Your task to perform on an android device: turn off sleep mode Image 0: 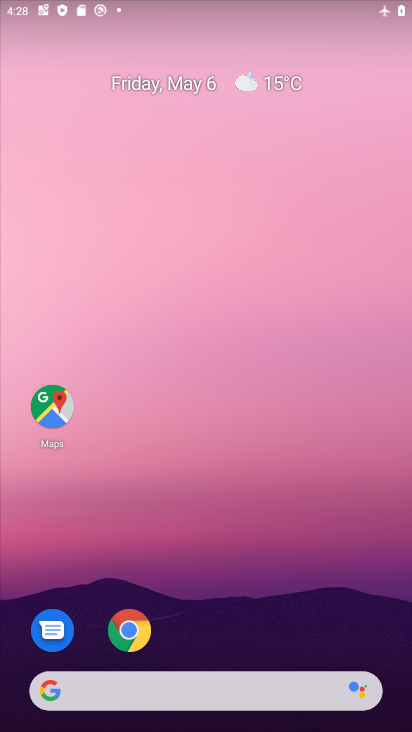
Step 0: click (307, 9)
Your task to perform on an android device: turn off sleep mode Image 1: 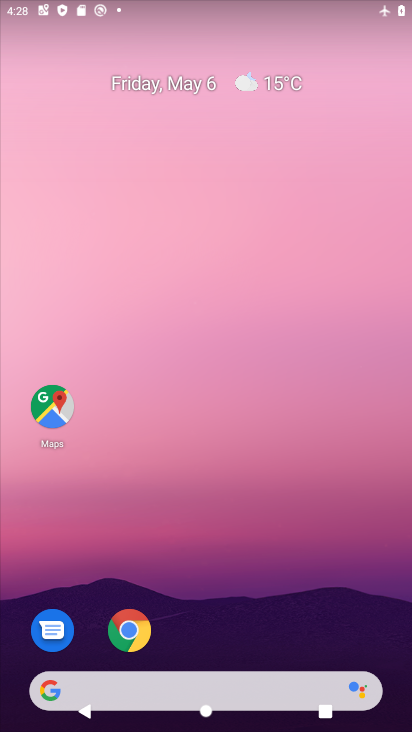
Step 1: drag from (214, 547) to (299, 12)
Your task to perform on an android device: turn off sleep mode Image 2: 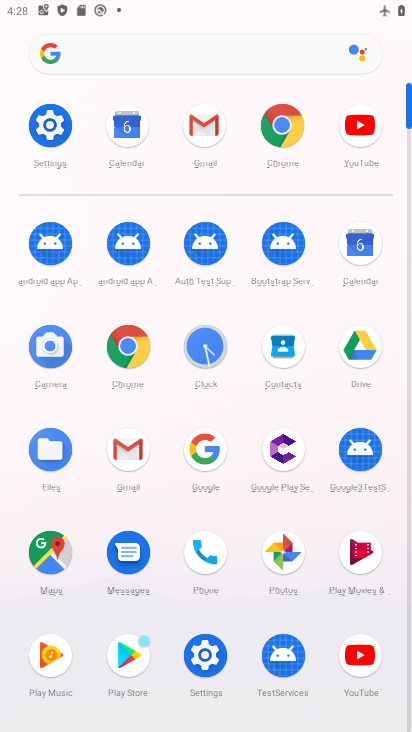
Step 2: click (53, 107)
Your task to perform on an android device: turn off sleep mode Image 3: 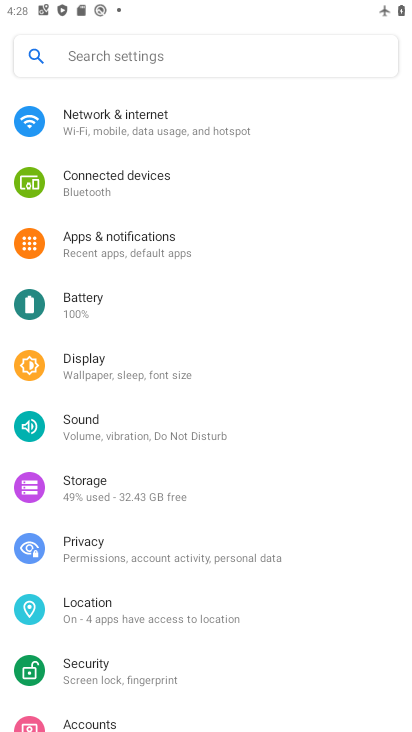
Step 3: click (203, 61)
Your task to perform on an android device: turn off sleep mode Image 4: 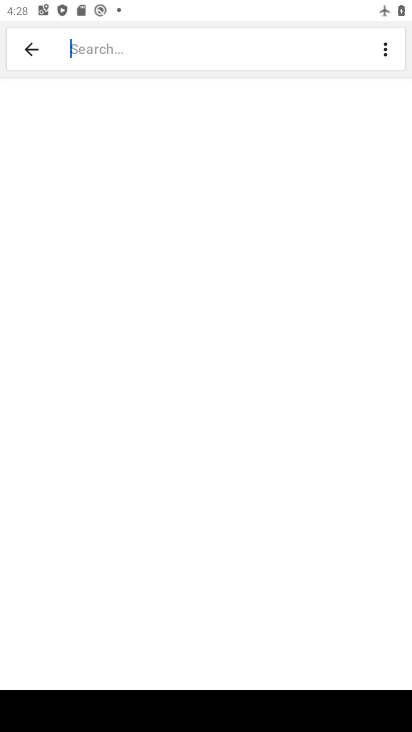
Step 4: type "sleep mode"
Your task to perform on an android device: turn off sleep mode Image 5: 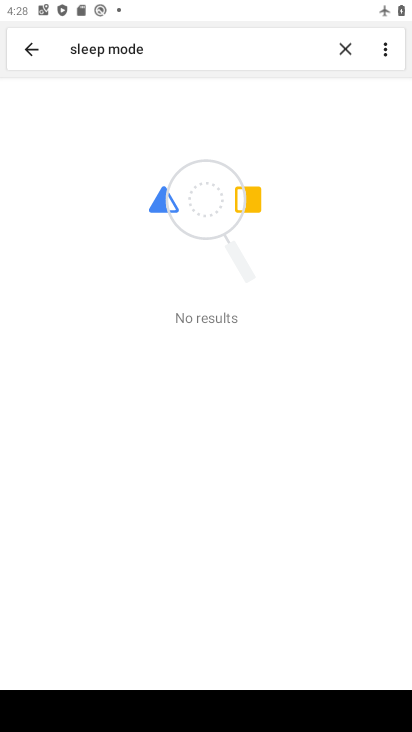
Step 5: task complete